Your task to perform on an android device: turn off notifications in google photos Image 0: 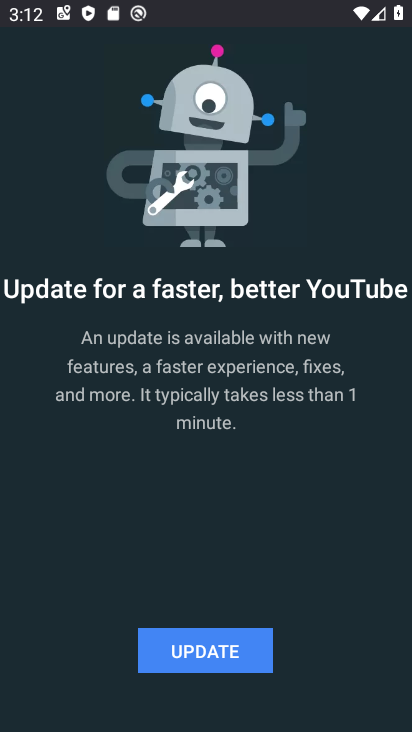
Step 0: press home button
Your task to perform on an android device: turn off notifications in google photos Image 1: 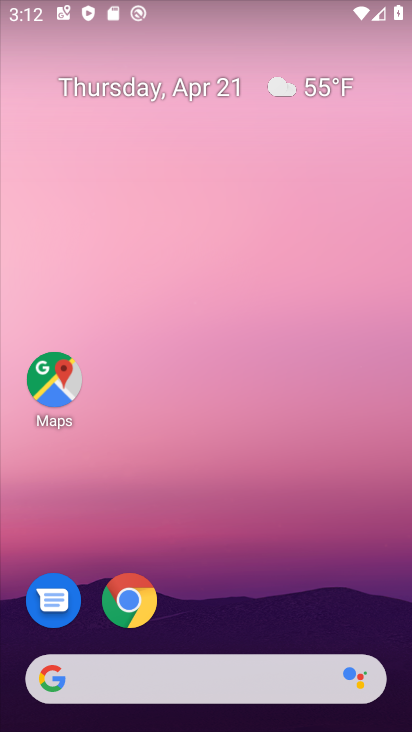
Step 1: click (325, 48)
Your task to perform on an android device: turn off notifications in google photos Image 2: 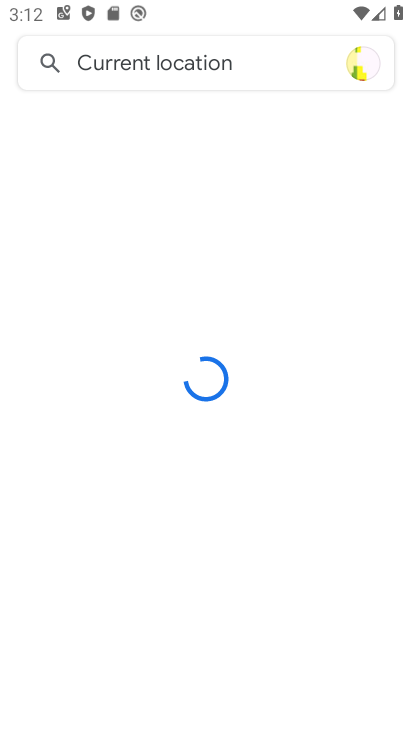
Step 2: press home button
Your task to perform on an android device: turn off notifications in google photos Image 3: 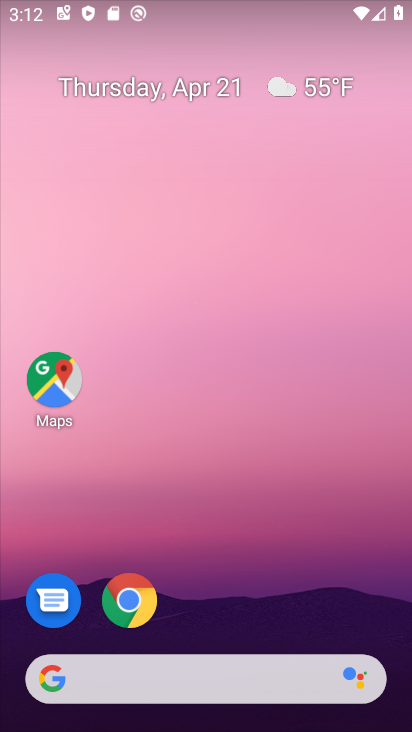
Step 3: drag from (135, 675) to (296, 205)
Your task to perform on an android device: turn off notifications in google photos Image 4: 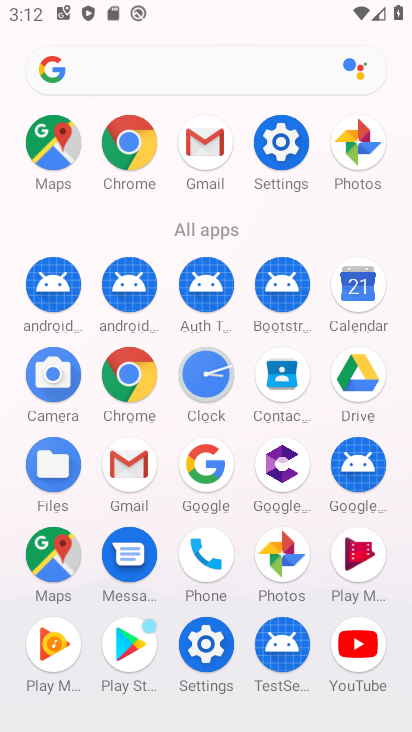
Step 4: click (278, 557)
Your task to perform on an android device: turn off notifications in google photos Image 5: 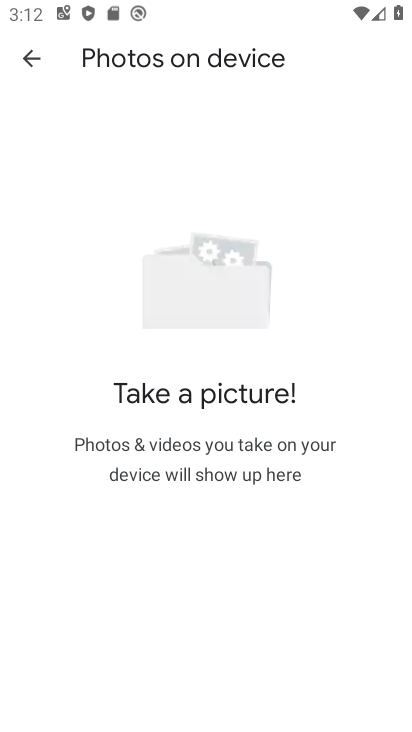
Step 5: click (35, 63)
Your task to perform on an android device: turn off notifications in google photos Image 6: 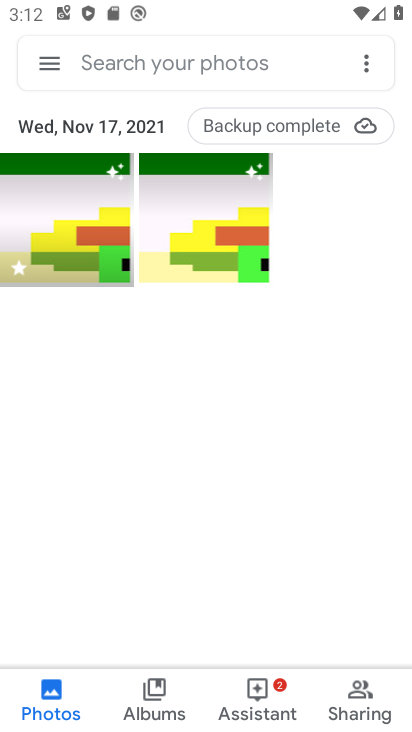
Step 6: click (49, 59)
Your task to perform on an android device: turn off notifications in google photos Image 7: 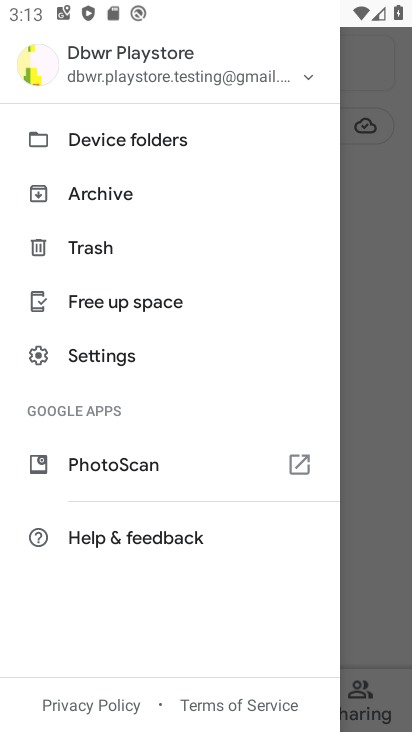
Step 7: click (116, 352)
Your task to perform on an android device: turn off notifications in google photos Image 8: 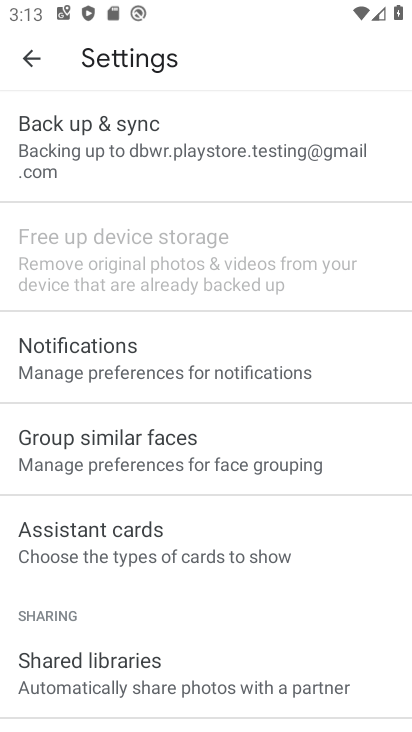
Step 8: click (156, 370)
Your task to perform on an android device: turn off notifications in google photos Image 9: 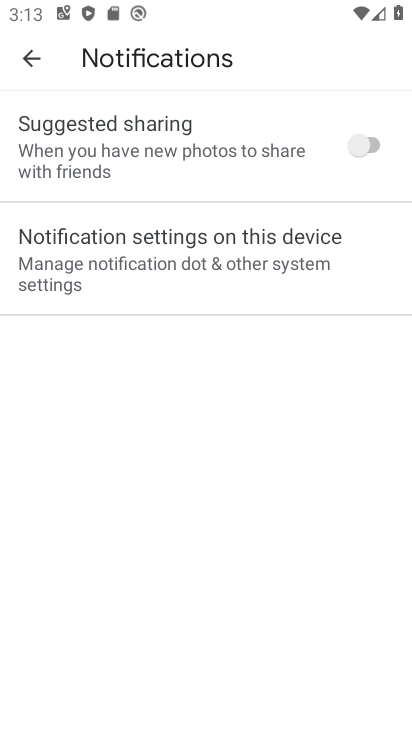
Step 9: task complete